Your task to perform on an android device: turn off improve location accuracy Image 0: 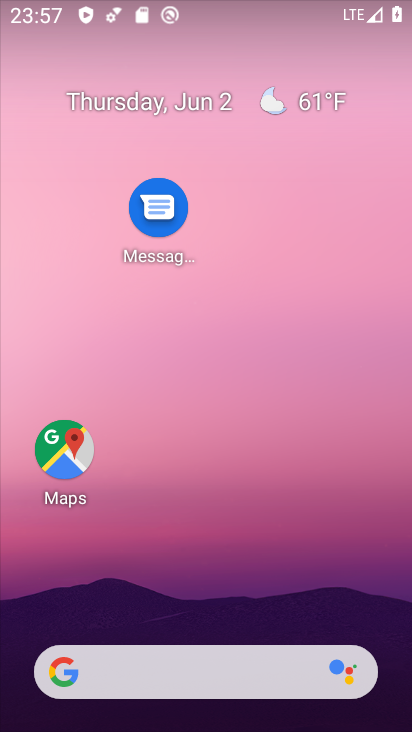
Step 0: click (128, 18)
Your task to perform on an android device: turn off improve location accuracy Image 1: 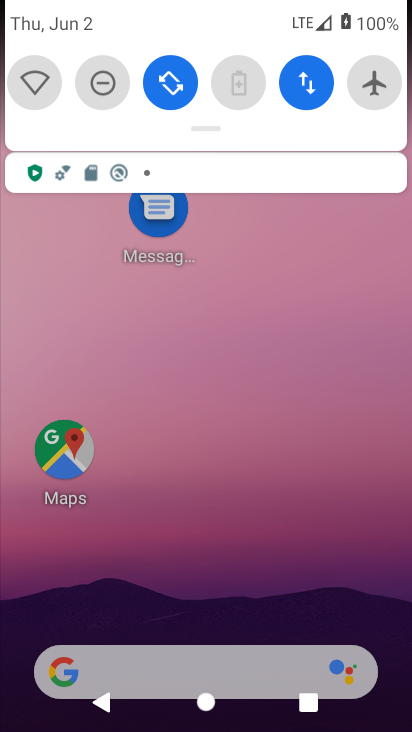
Step 1: drag from (202, 619) to (215, 31)
Your task to perform on an android device: turn off improve location accuracy Image 2: 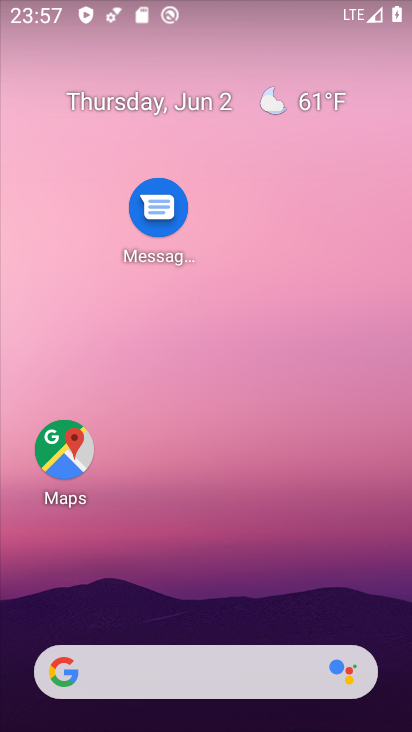
Step 2: drag from (212, 630) to (391, 362)
Your task to perform on an android device: turn off improve location accuracy Image 3: 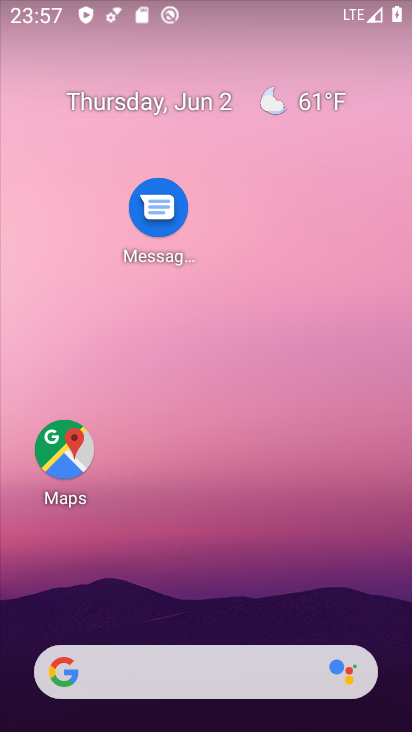
Step 3: drag from (197, 601) to (178, 10)
Your task to perform on an android device: turn off improve location accuracy Image 4: 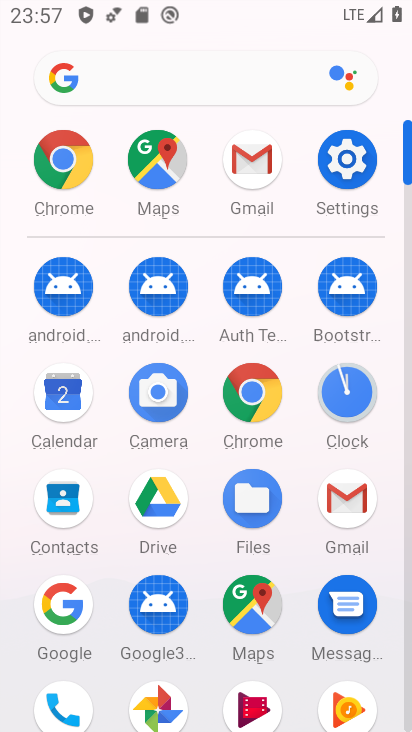
Step 4: click (339, 153)
Your task to perform on an android device: turn off improve location accuracy Image 5: 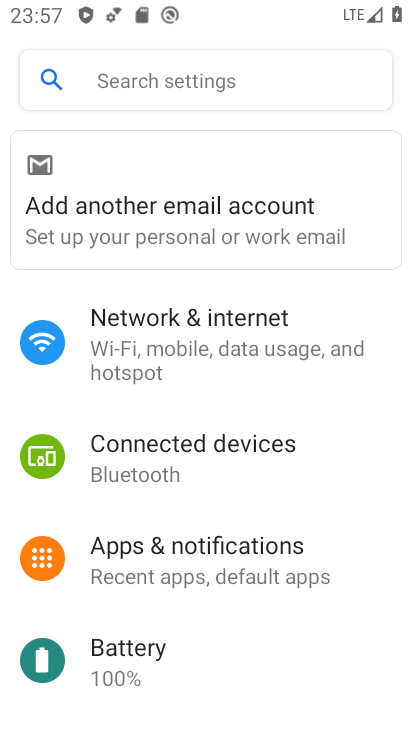
Step 5: drag from (257, 587) to (186, 120)
Your task to perform on an android device: turn off improve location accuracy Image 6: 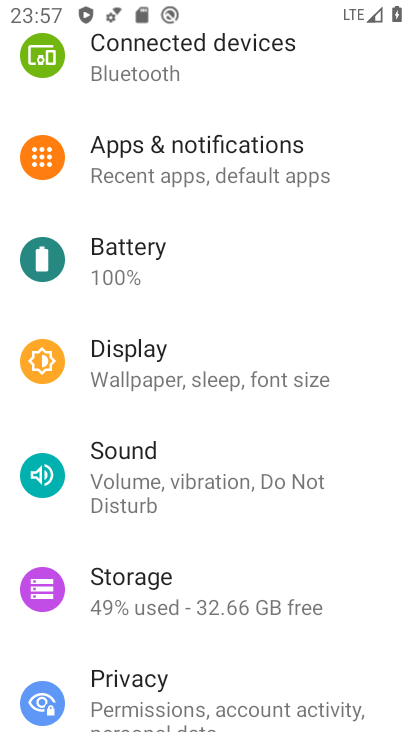
Step 6: drag from (183, 495) to (223, 8)
Your task to perform on an android device: turn off improve location accuracy Image 7: 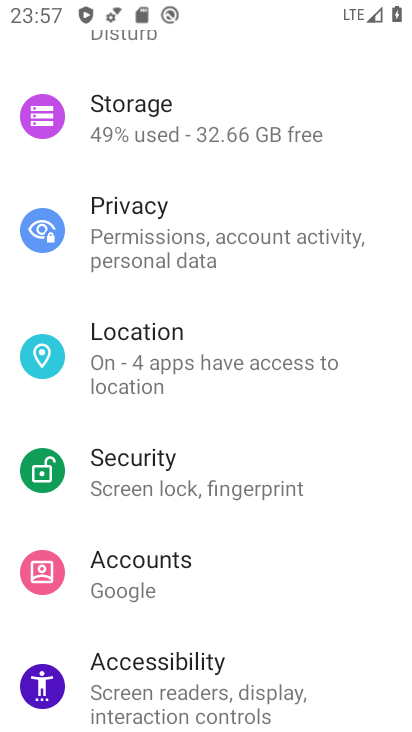
Step 7: drag from (192, 589) to (180, 420)
Your task to perform on an android device: turn off improve location accuracy Image 8: 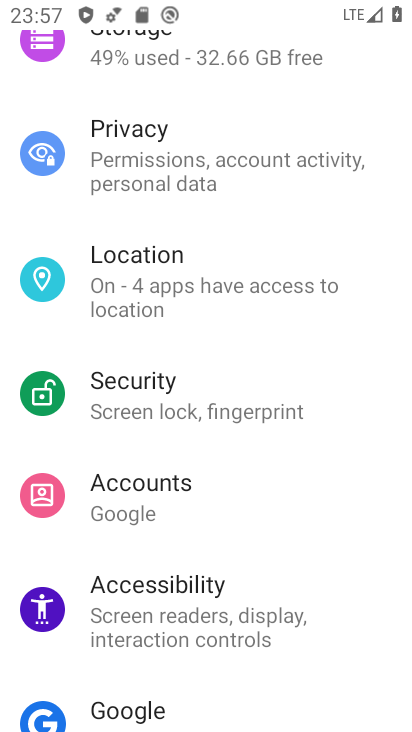
Step 8: click (165, 270)
Your task to perform on an android device: turn off improve location accuracy Image 9: 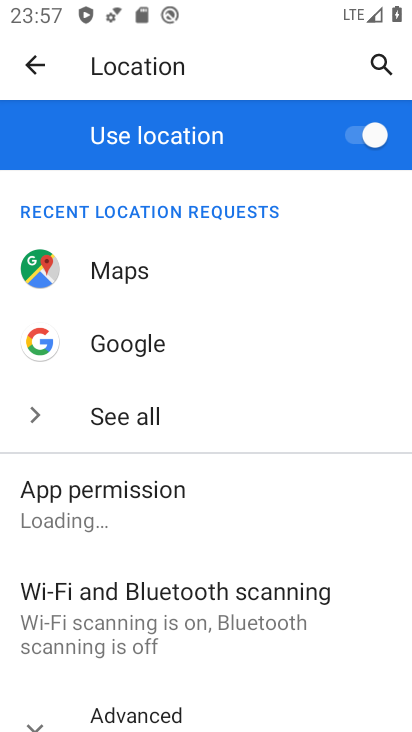
Step 9: click (221, 704)
Your task to perform on an android device: turn off improve location accuracy Image 10: 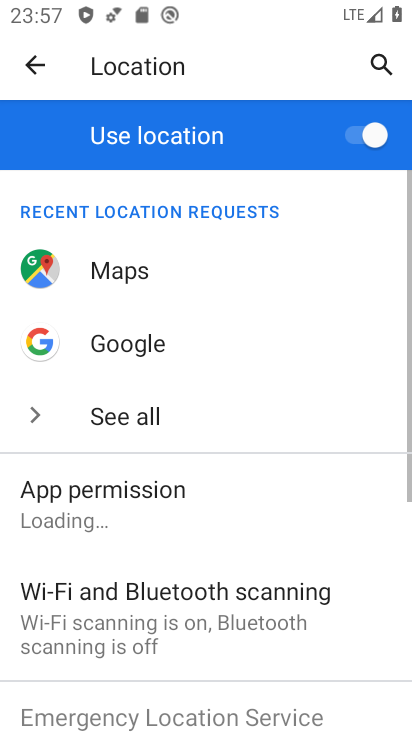
Step 10: drag from (220, 703) to (198, 224)
Your task to perform on an android device: turn off improve location accuracy Image 11: 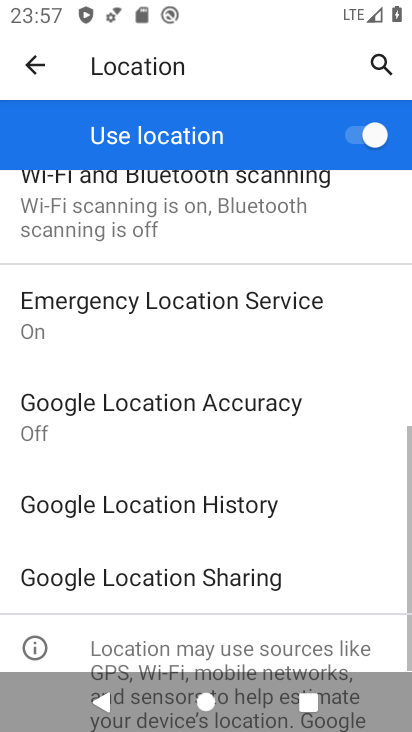
Step 11: click (191, 420)
Your task to perform on an android device: turn off improve location accuracy Image 12: 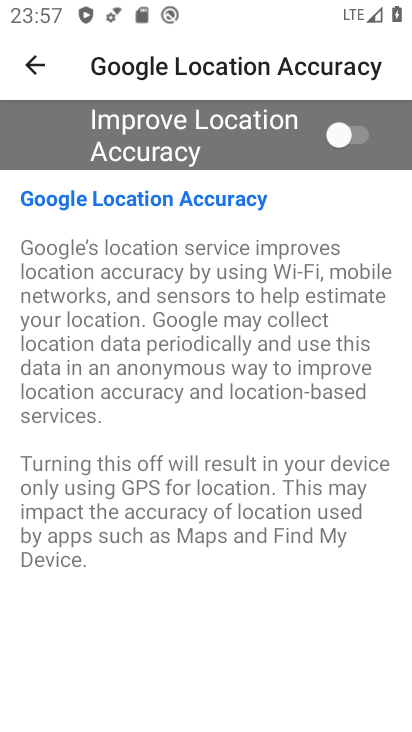
Step 12: task complete